Your task to perform on an android device: open app "Calculator" Image 0: 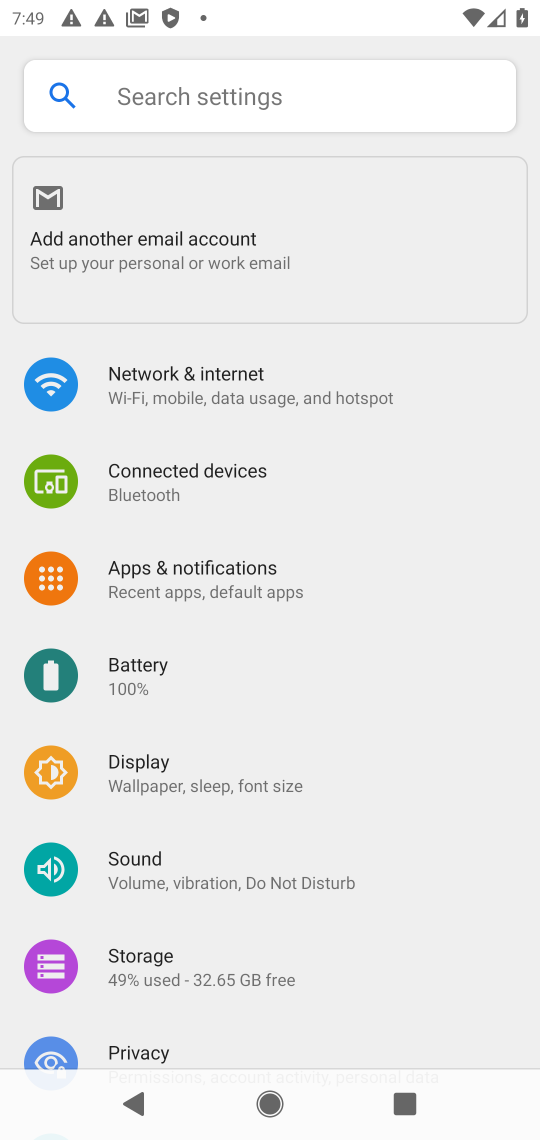
Step 0: press home button
Your task to perform on an android device: open app "Calculator" Image 1: 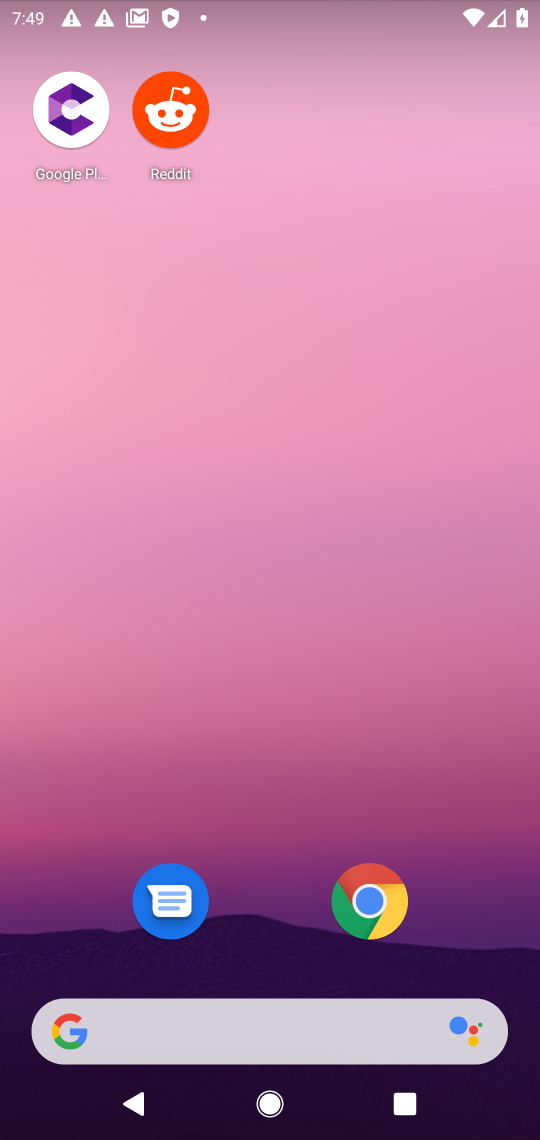
Step 1: drag from (267, 802) to (400, 119)
Your task to perform on an android device: open app "Calculator" Image 2: 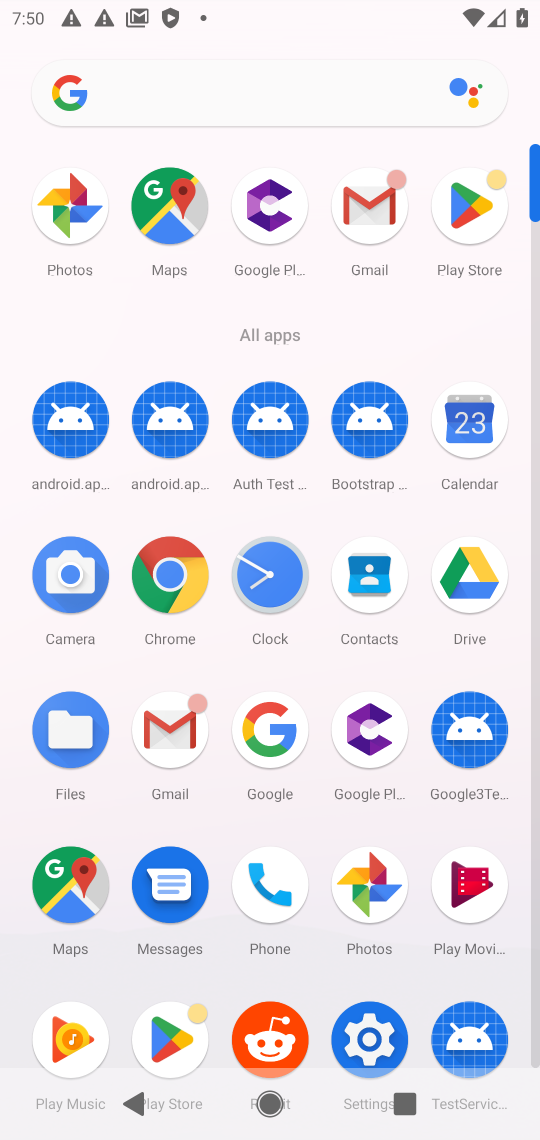
Step 2: click (464, 430)
Your task to perform on an android device: open app "Calculator" Image 3: 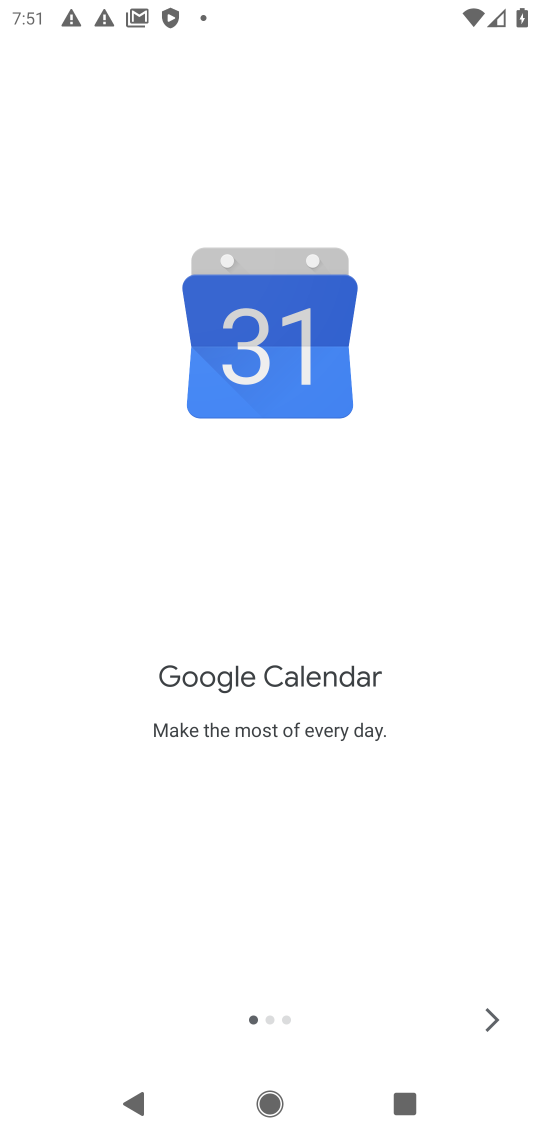
Step 3: click (470, 1021)
Your task to perform on an android device: open app "Calculator" Image 4: 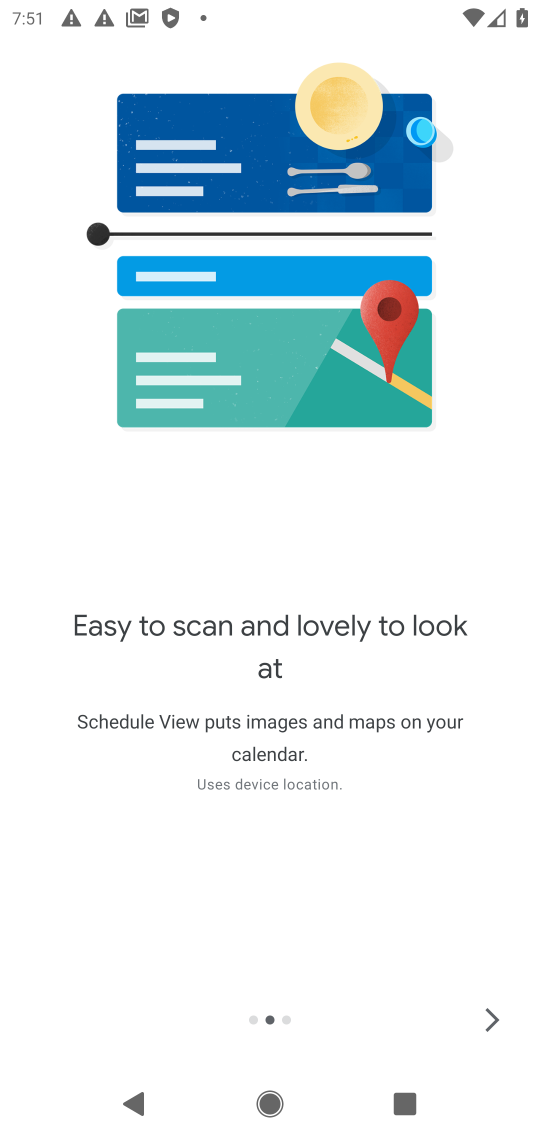
Step 4: click (488, 1025)
Your task to perform on an android device: open app "Calculator" Image 5: 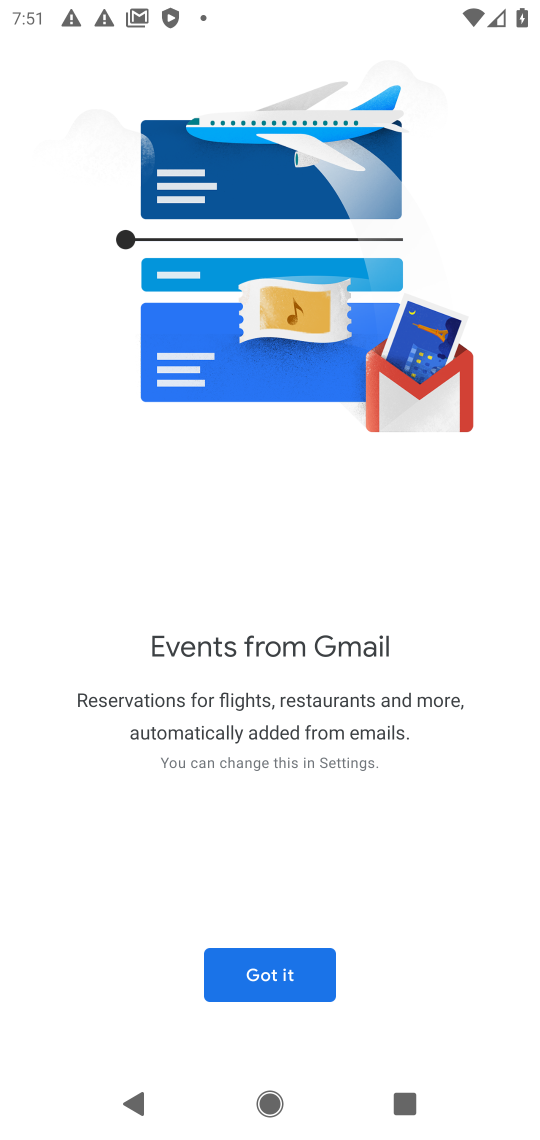
Step 5: click (231, 978)
Your task to perform on an android device: open app "Calculator" Image 6: 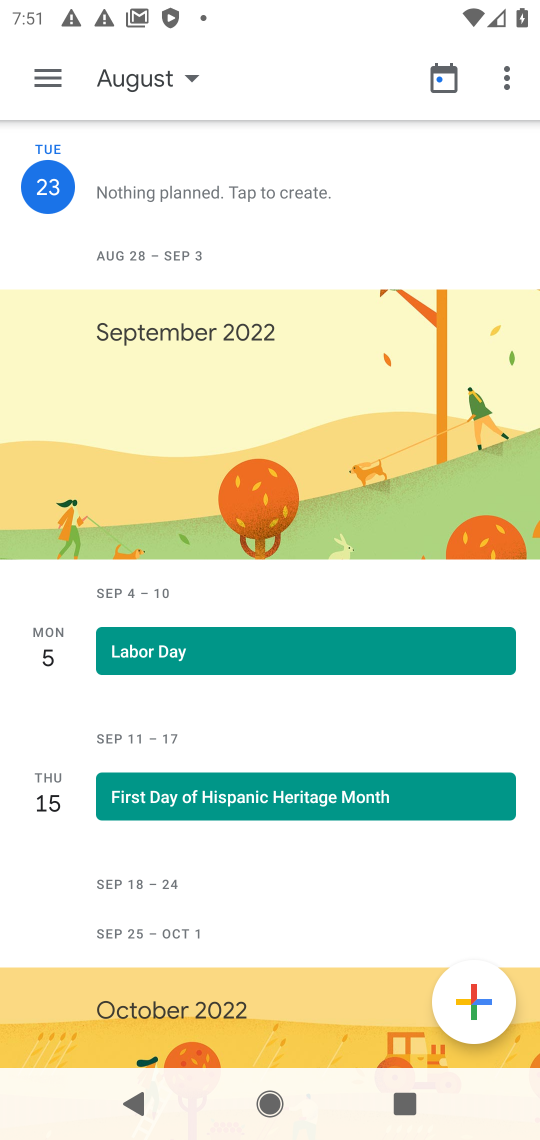
Step 6: task complete